Your task to perform on an android device: change the clock style Image 0: 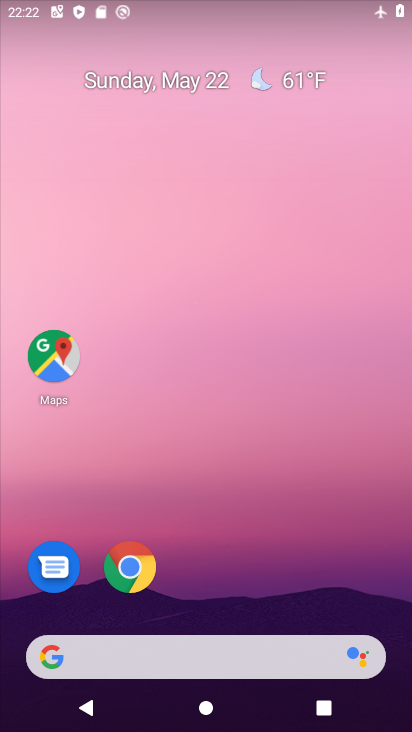
Step 0: drag from (198, 627) to (337, 449)
Your task to perform on an android device: change the clock style Image 1: 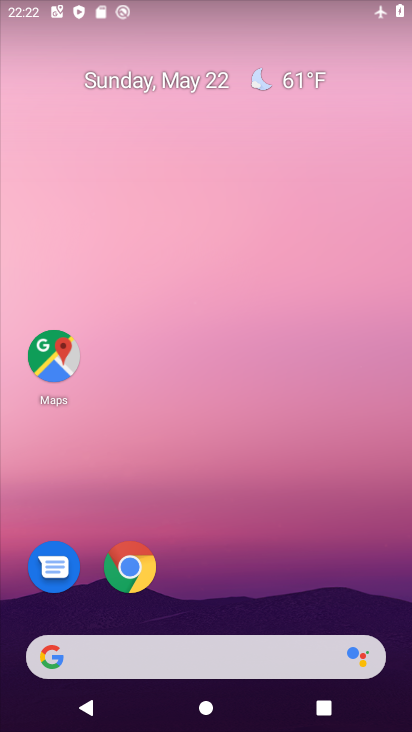
Step 1: drag from (217, 607) to (144, 0)
Your task to perform on an android device: change the clock style Image 2: 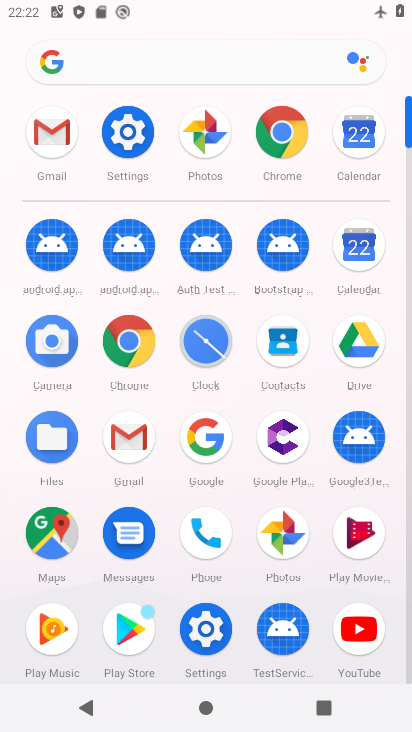
Step 2: click (209, 357)
Your task to perform on an android device: change the clock style Image 3: 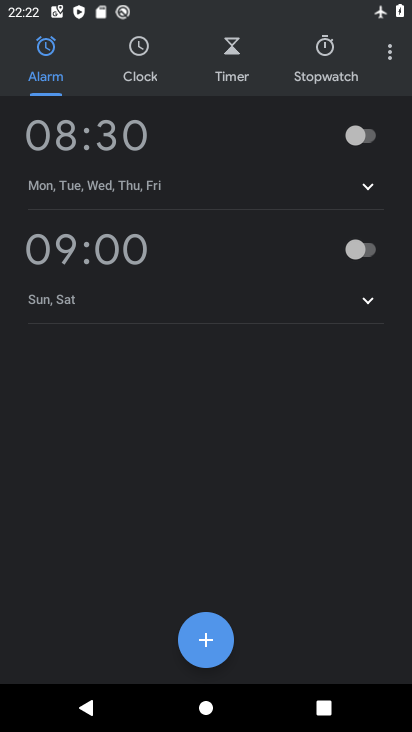
Step 3: click (387, 60)
Your task to perform on an android device: change the clock style Image 4: 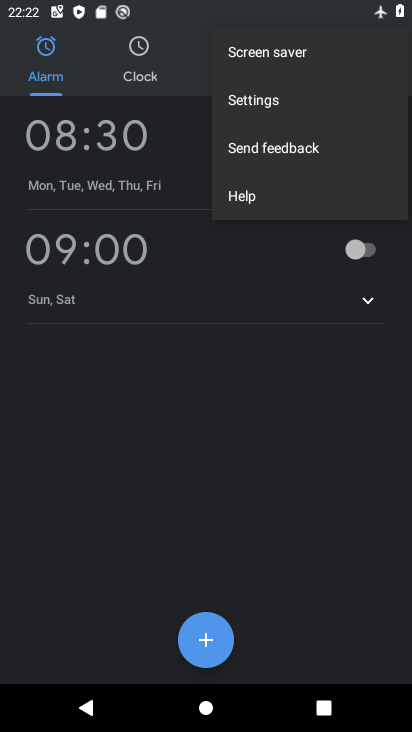
Step 4: click (268, 103)
Your task to perform on an android device: change the clock style Image 5: 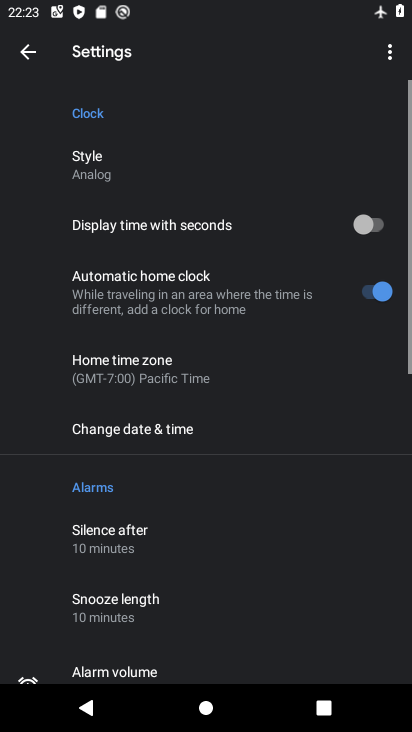
Step 5: click (80, 160)
Your task to perform on an android device: change the clock style Image 6: 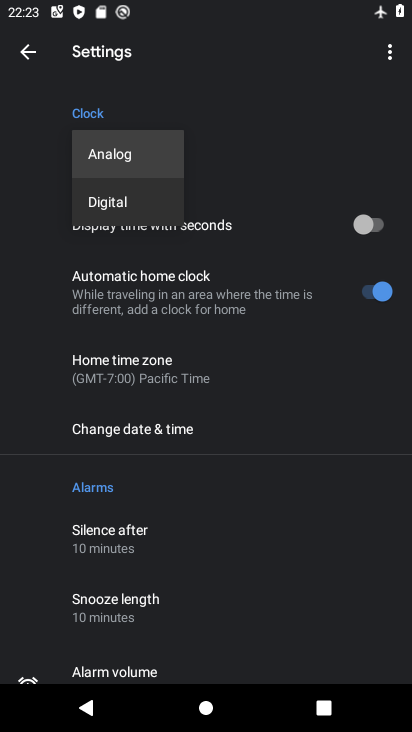
Step 6: click (109, 200)
Your task to perform on an android device: change the clock style Image 7: 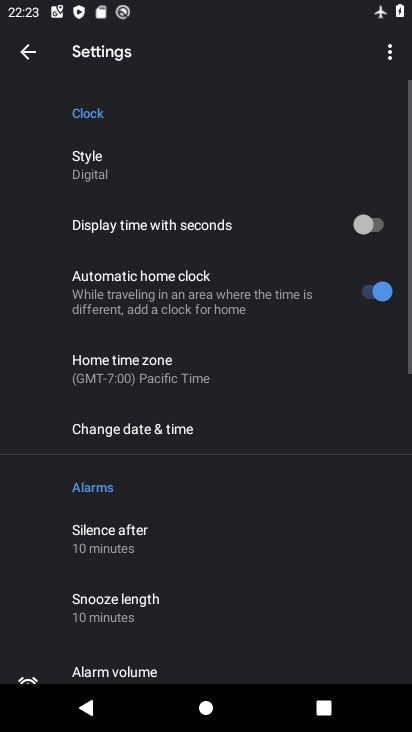
Step 7: task complete